Your task to perform on an android device: Go to battery settings Image 0: 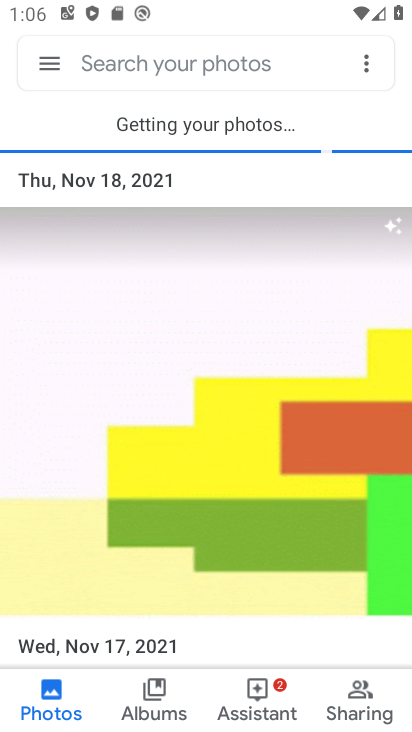
Step 0: press home button
Your task to perform on an android device: Go to battery settings Image 1: 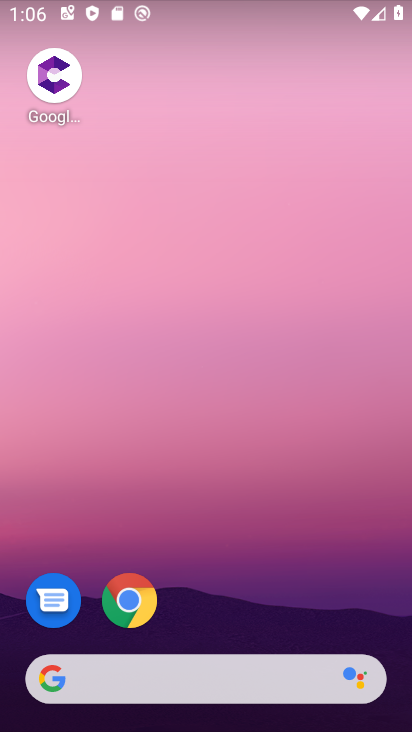
Step 1: drag from (209, 710) to (189, 55)
Your task to perform on an android device: Go to battery settings Image 2: 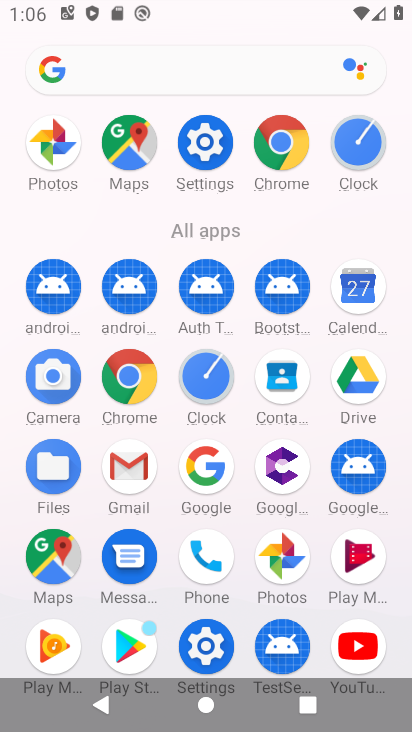
Step 2: click (204, 149)
Your task to perform on an android device: Go to battery settings Image 3: 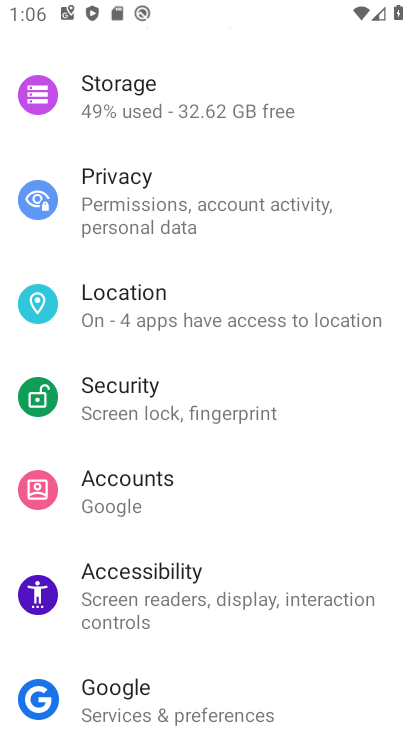
Step 3: drag from (207, 88) to (229, 498)
Your task to perform on an android device: Go to battery settings Image 4: 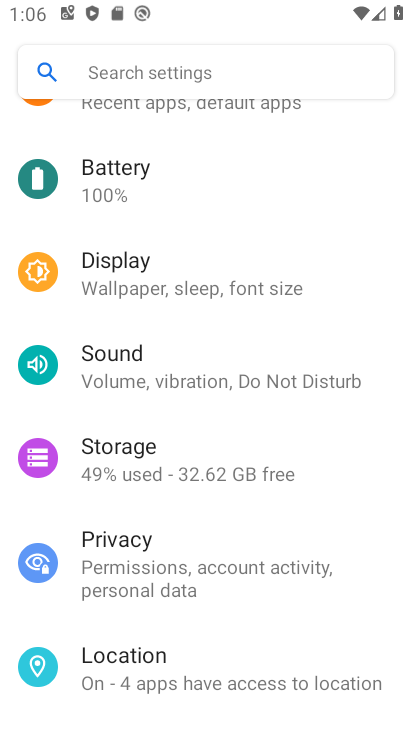
Step 4: click (108, 184)
Your task to perform on an android device: Go to battery settings Image 5: 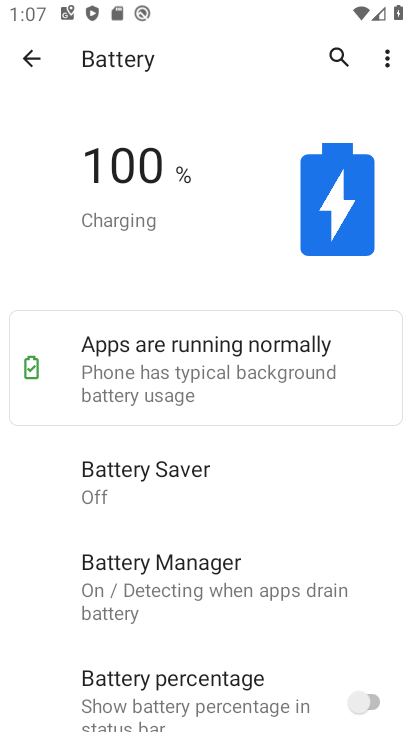
Step 5: task complete